Your task to perform on an android device: Open Amazon Image 0: 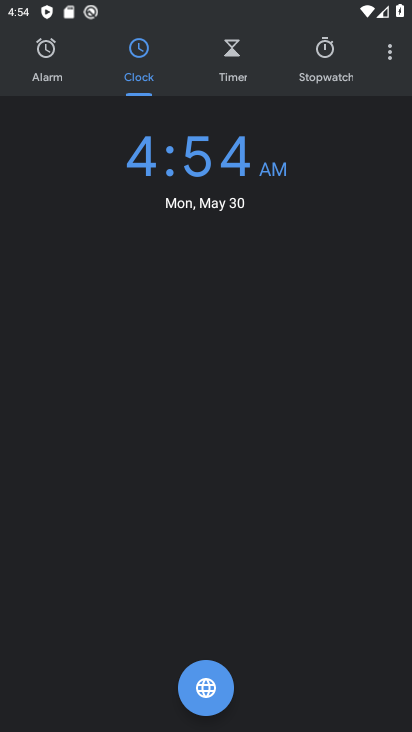
Step 0: press home button
Your task to perform on an android device: Open Amazon Image 1: 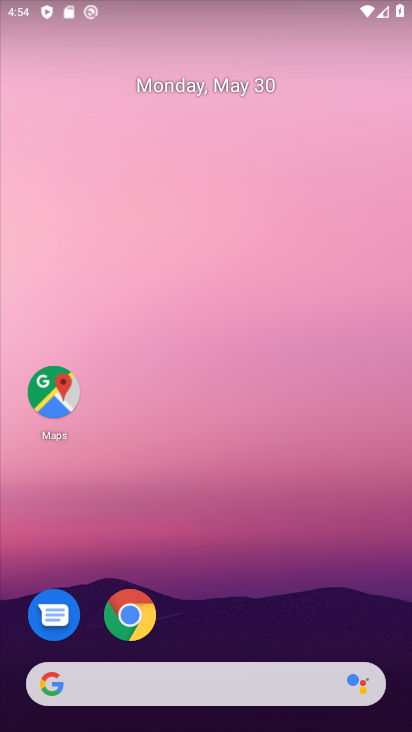
Step 1: click (133, 607)
Your task to perform on an android device: Open Amazon Image 2: 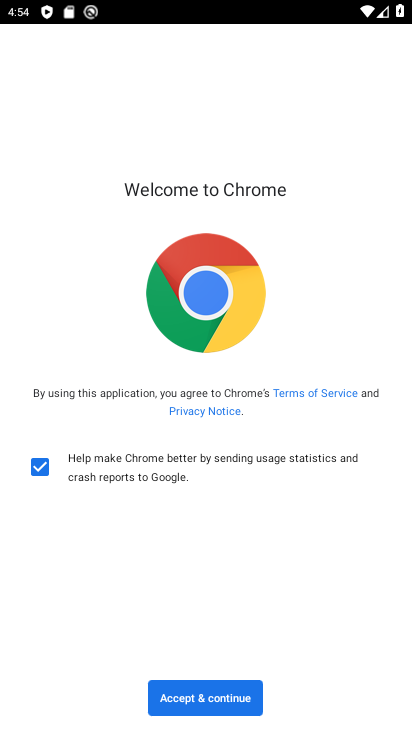
Step 2: click (220, 705)
Your task to perform on an android device: Open Amazon Image 3: 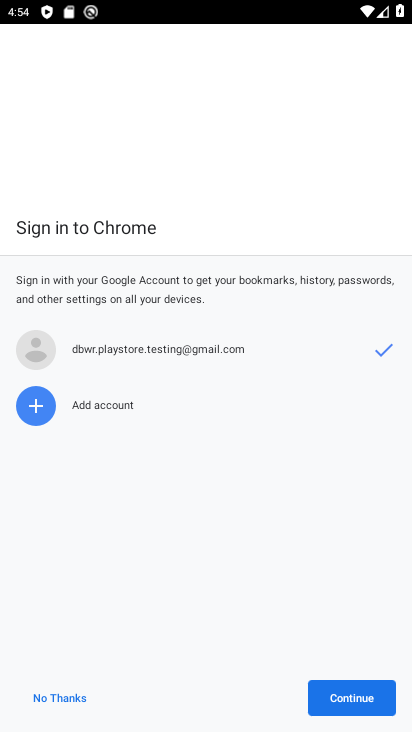
Step 3: click (220, 705)
Your task to perform on an android device: Open Amazon Image 4: 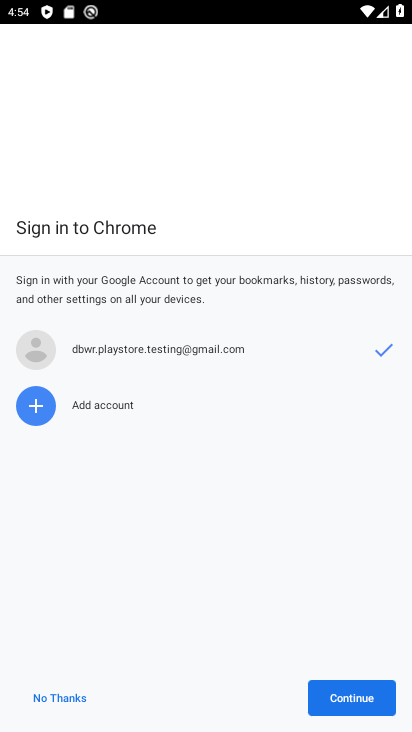
Step 4: click (220, 705)
Your task to perform on an android device: Open Amazon Image 5: 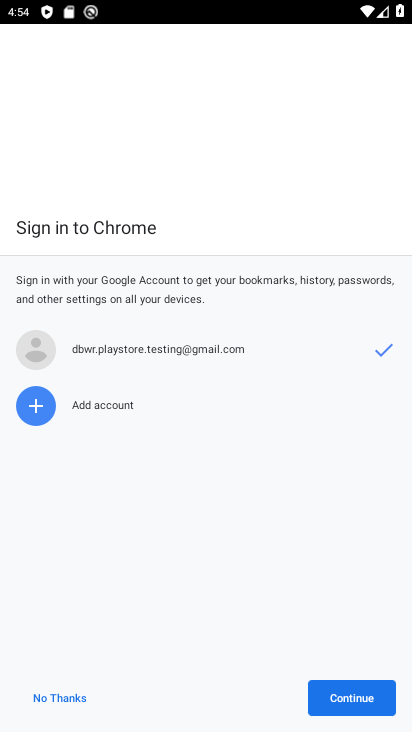
Step 5: click (220, 705)
Your task to perform on an android device: Open Amazon Image 6: 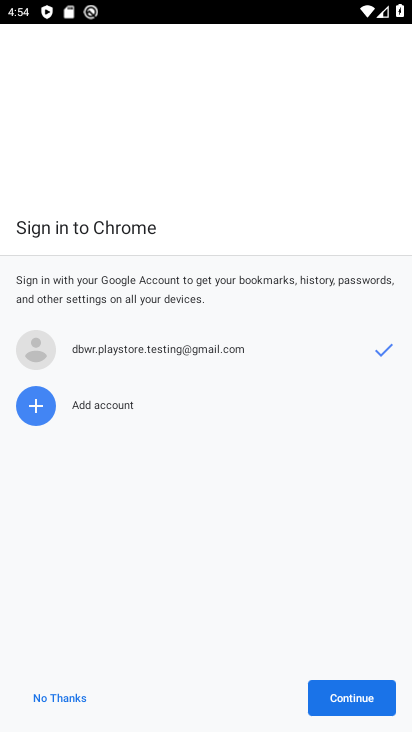
Step 6: click (348, 700)
Your task to perform on an android device: Open Amazon Image 7: 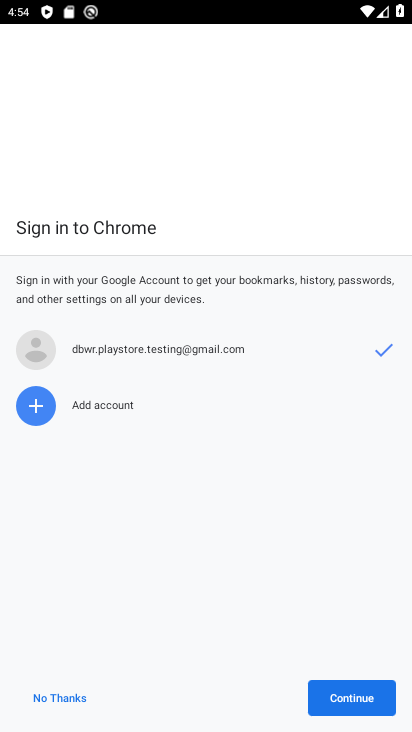
Step 7: click (348, 700)
Your task to perform on an android device: Open Amazon Image 8: 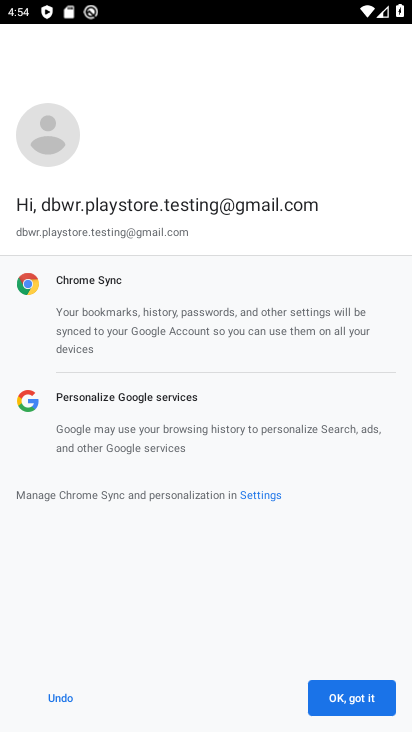
Step 8: click (348, 700)
Your task to perform on an android device: Open Amazon Image 9: 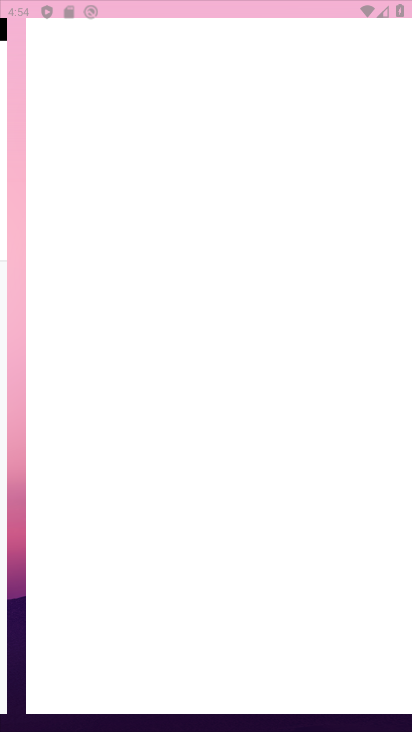
Step 9: click (348, 700)
Your task to perform on an android device: Open Amazon Image 10: 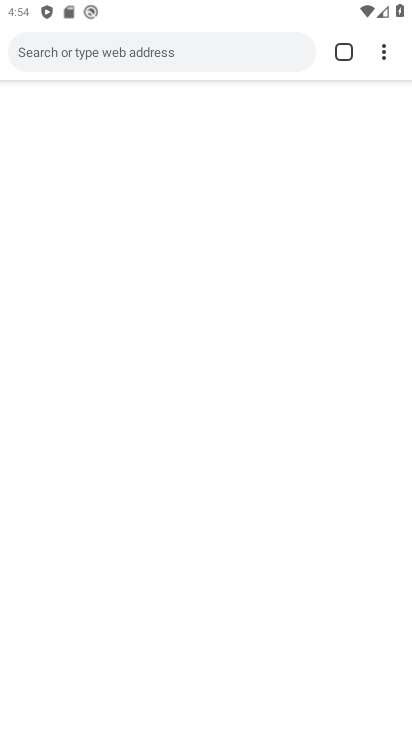
Step 10: click (348, 700)
Your task to perform on an android device: Open Amazon Image 11: 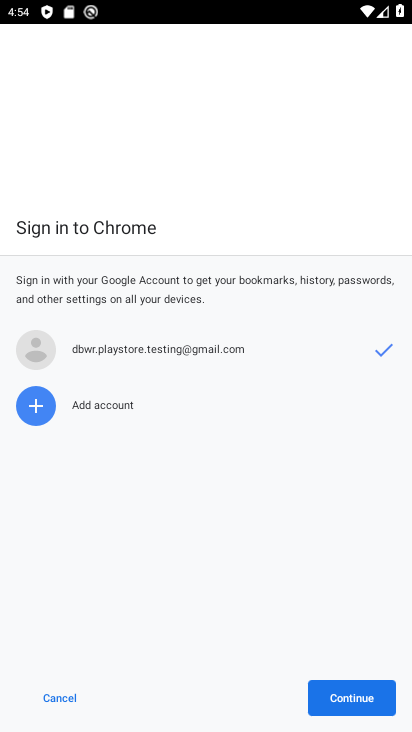
Step 11: click (342, 692)
Your task to perform on an android device: Open Amazon Image 12: 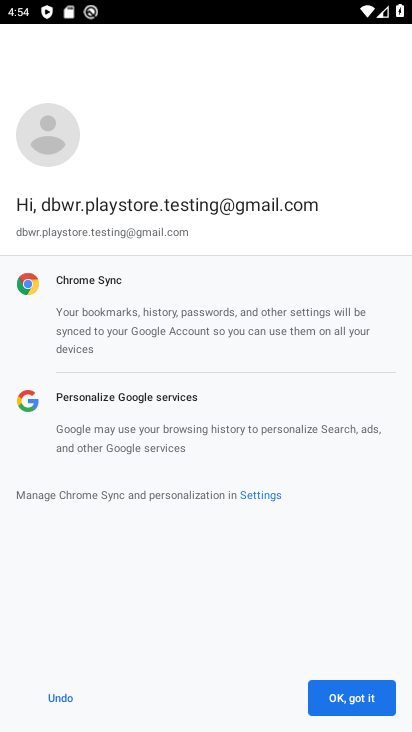
Step 12: click (342, 692)
Your task to perform on an android device: Open Amazon Image 13: 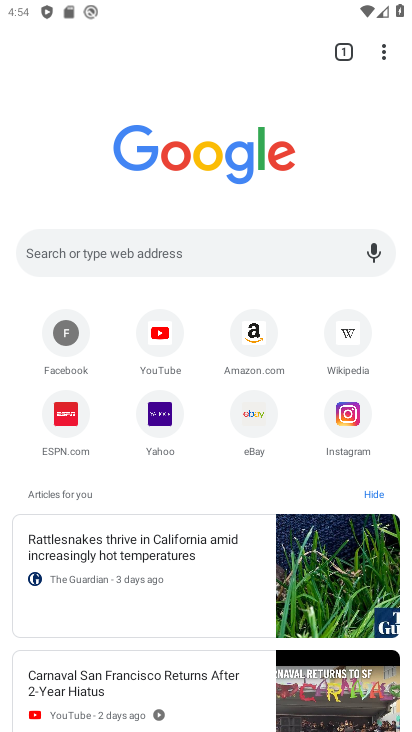
Step 13: click (240, 335)
Your task to perform on an android device: Open Amazon Image 14: 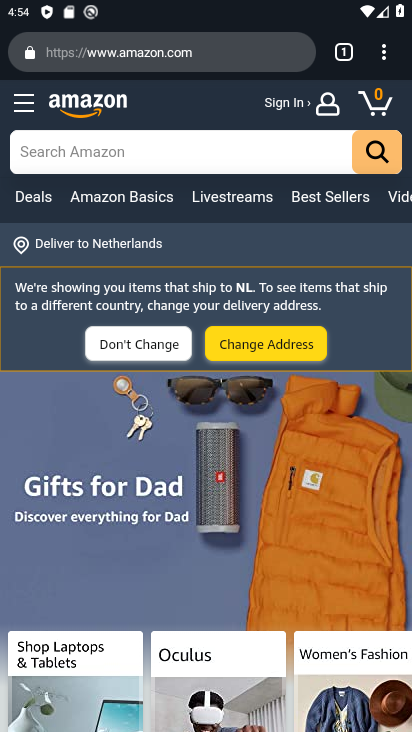
Step 14: task complete